Your task to perform on an android device: Open location settings Image 0: 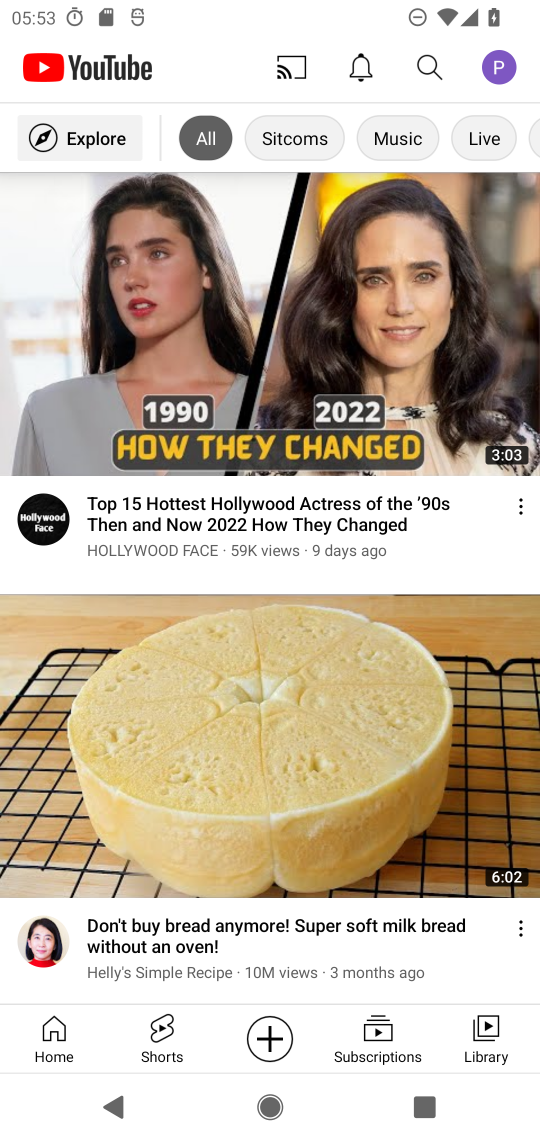
Step 0: press home button
Your task to perform on an android device: Open location settings Image 1: 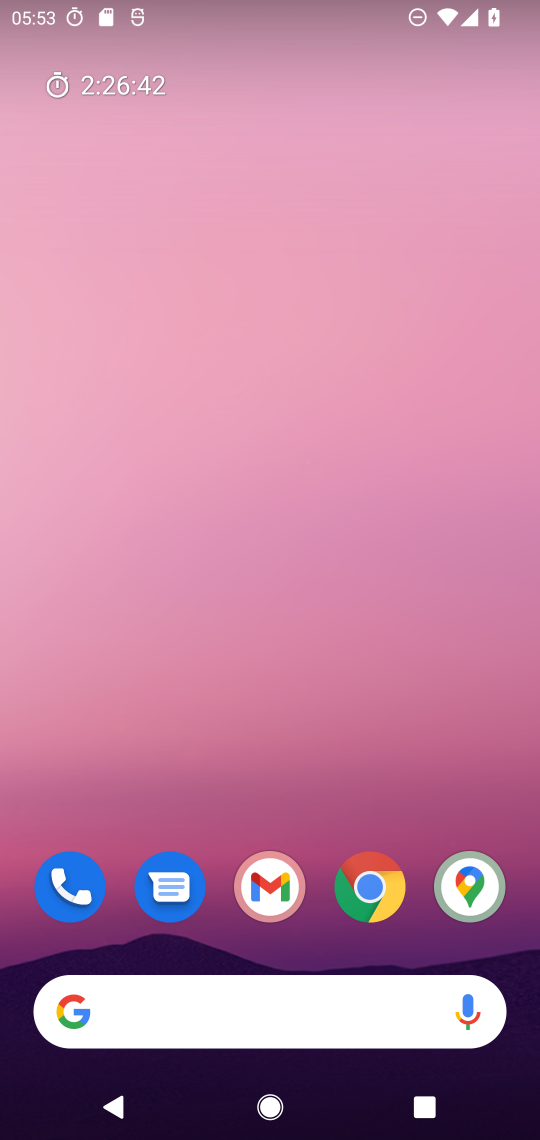
Step 1: drag from (426, 790) to (260, 27)
Your task to perform on an android device: Open location settings Image 2: 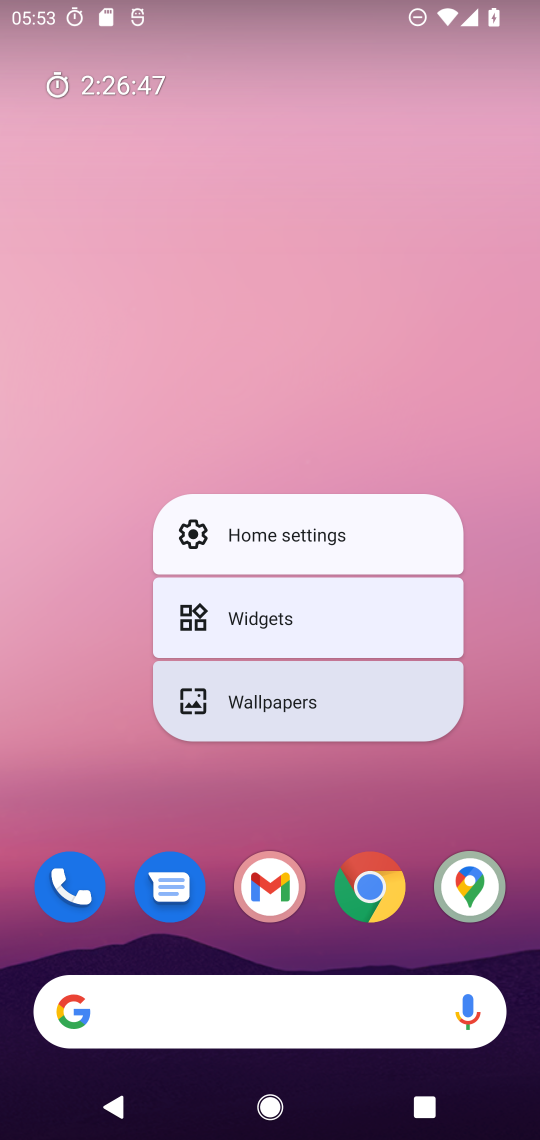
Step 2: drag from (58, 714) to (99, 224)
Your task to perform on an android device: Open location settings Image 3: 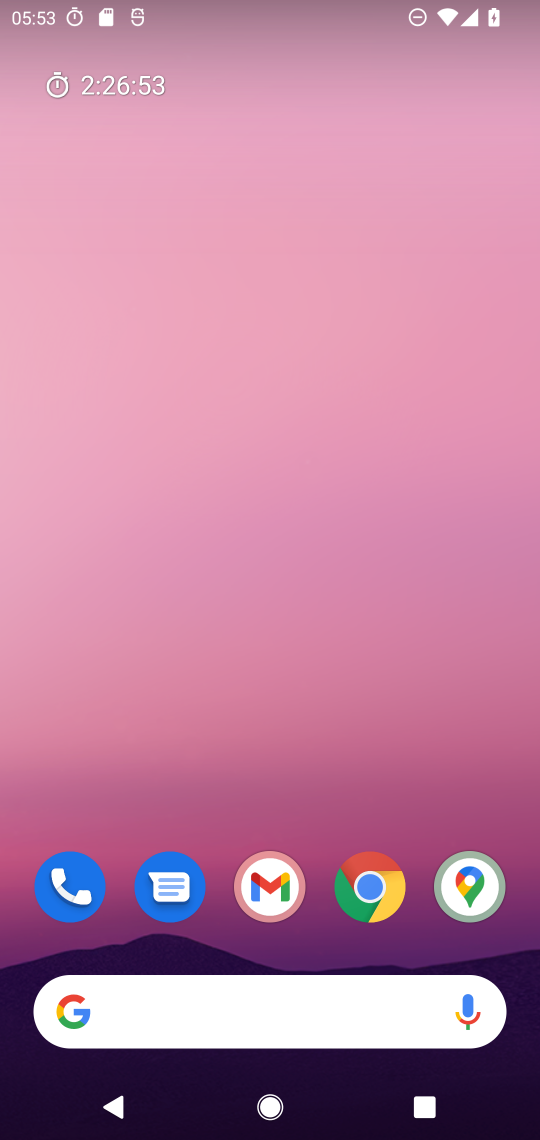
Step 3: drag from (405, 796) to (409, 195)
Your task to perform on an android device: Open location settings Image 4: 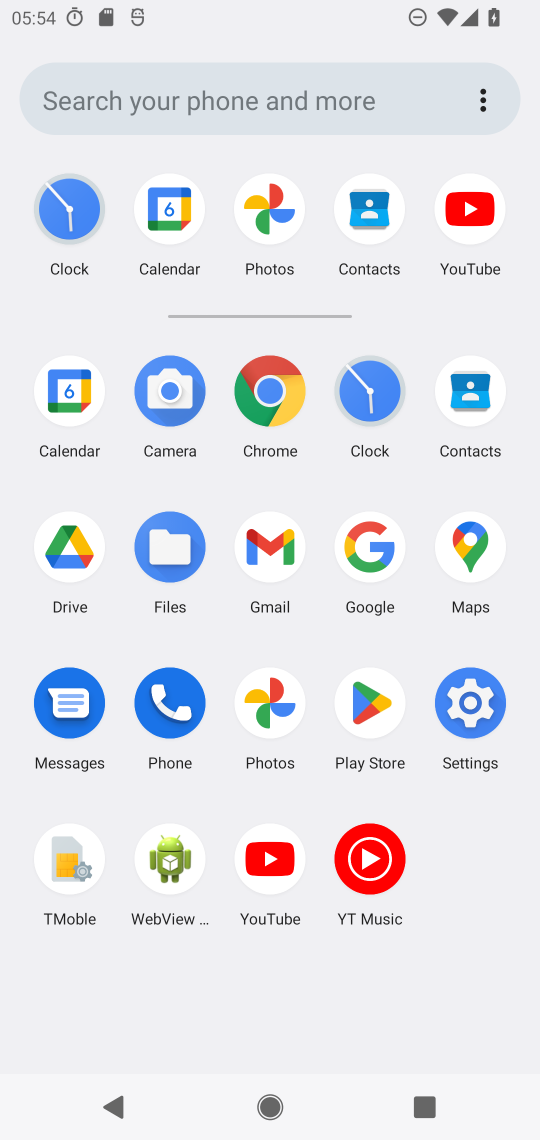
Step 4: click (471, 696)
Your task to perform on an android device: Open location settings Image 5: 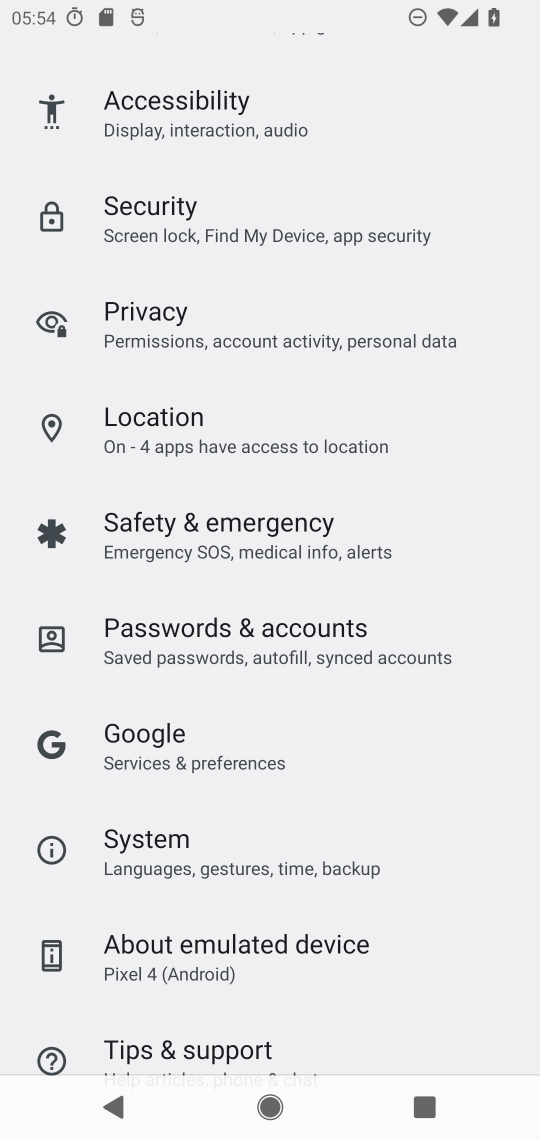
Step 5: drag from (476, 557) to (485, 652)
Your task to perform on an android device: Open location settings Image 6: 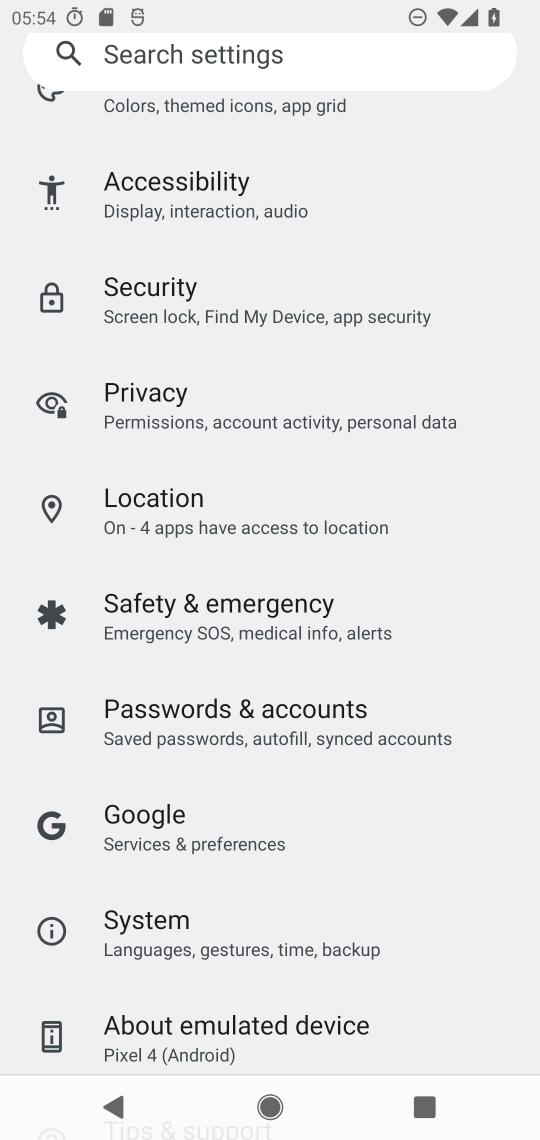
Step 6: drag from (478, 323) to (484, 566)
Your task to perform on an android device: Open location settings Image 7: 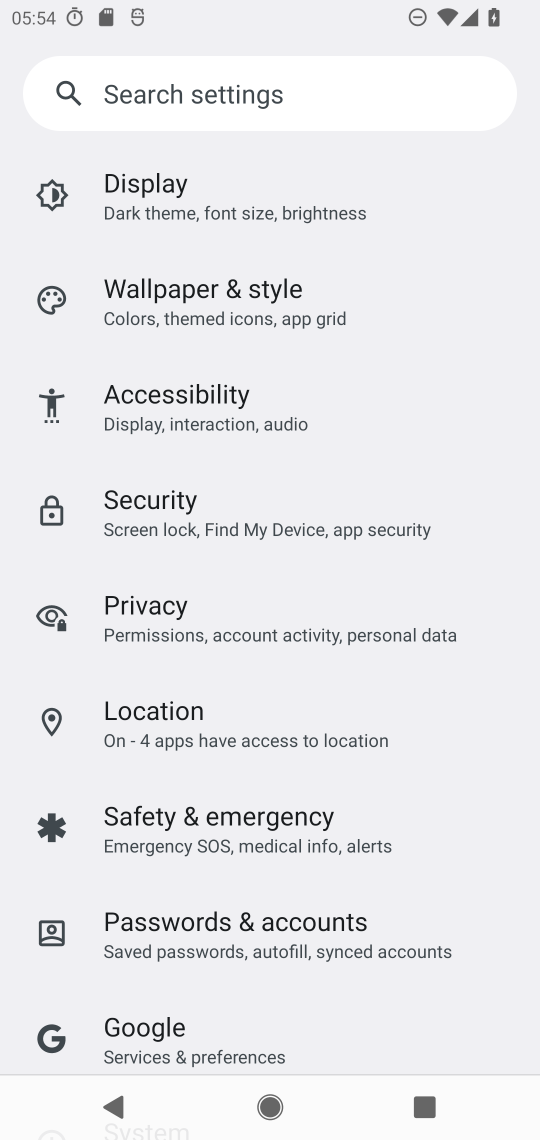
Step 7: drag from (459, 223) to (452, 558)
Your task to perform on an android device: Open location settings Image 8: 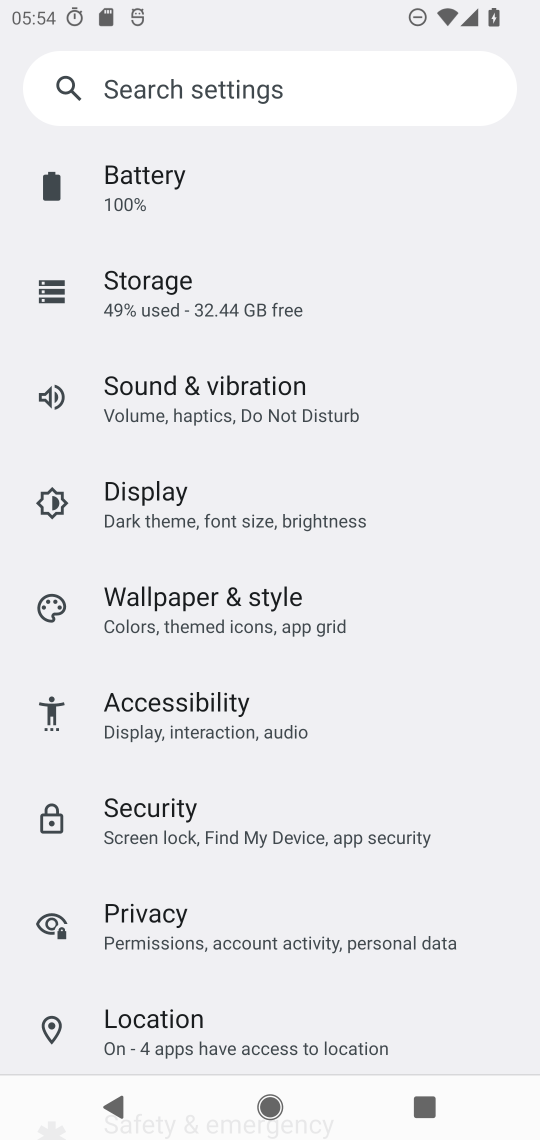
Step 8: click (399, 993)
Your task to perform on an android device: Open location settings Image 9: 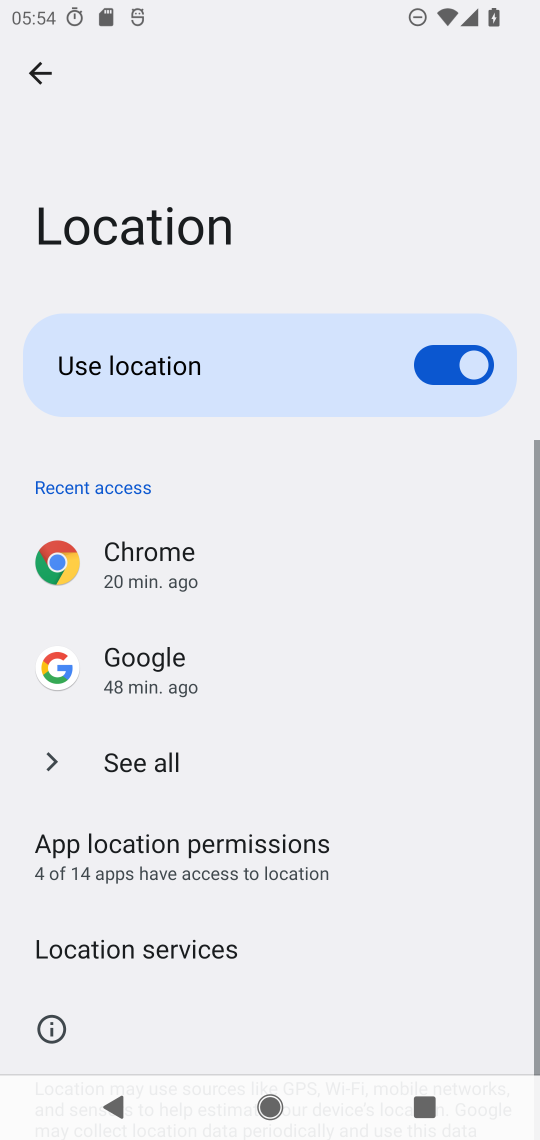
Step 9: task complete